Your task to perform on an android device: turn vacation reply on in the gmail app Image 0: 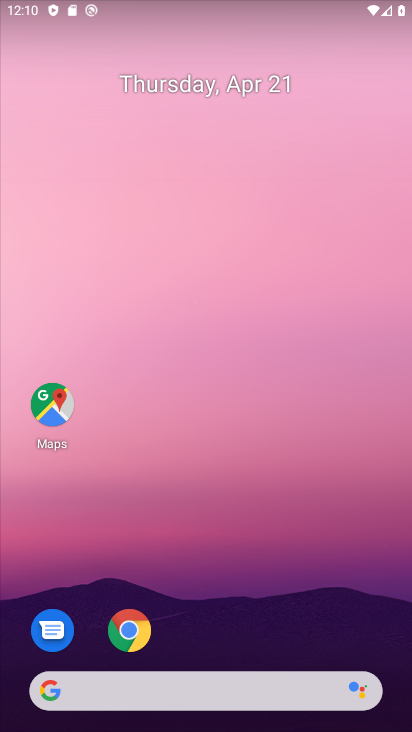
Step 0: drag from (343, 136) to (268, 134)
Your task to perform on an android device: turn vacation reply on in the gmail app Image 1: 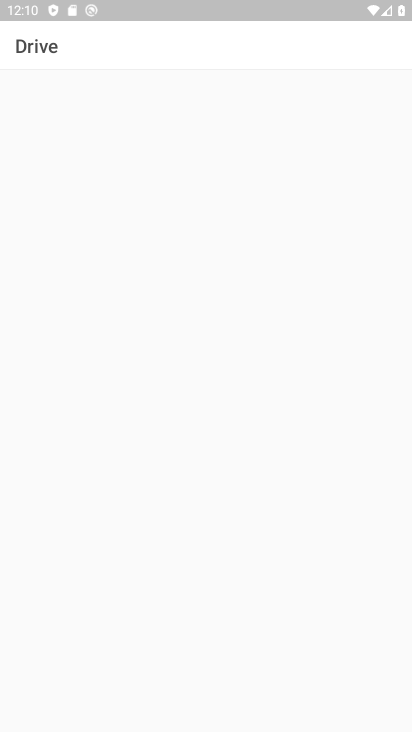
Step 1: press home button
Your task to perform on an android device: turn vacation reply on in the gmail app Image 2: 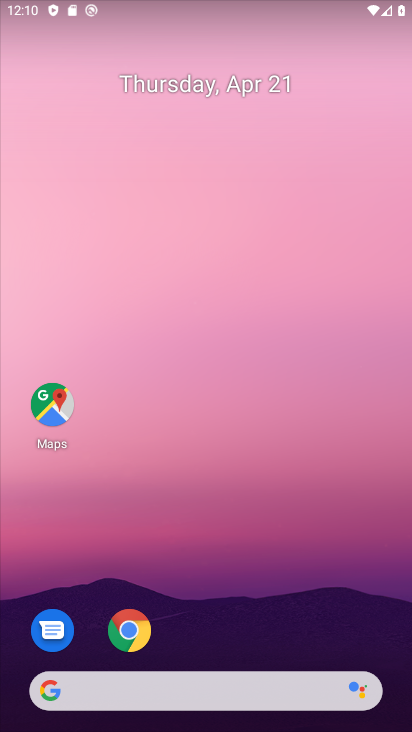
Step 2: drag from (271, 493) to (264, 74)
Your task to perform on an android device: turn vacation reply on in the gmail app Image 3: 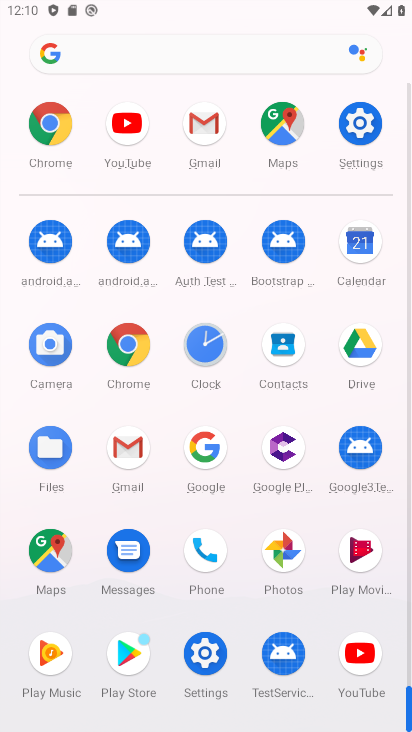
Step 3: click (218, 129)
Your task to perform on an android device: turn vacation reply on in the gmail app Image 4: 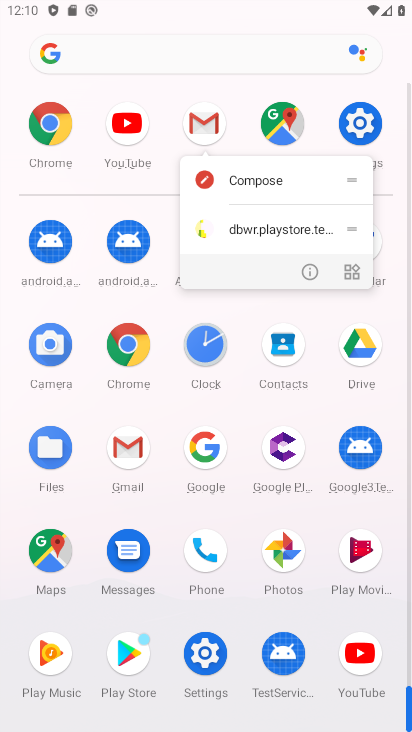
Step 4: click (218, 129)
Your task to perform on an android device: turn vacation reply on in the gmail app Image 5: 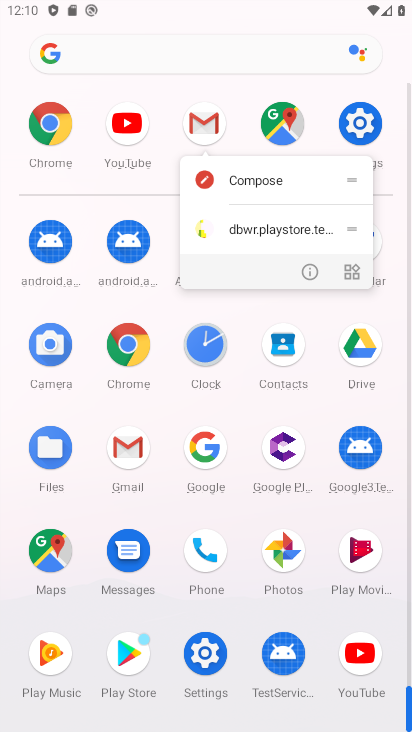
Step 5: click (218, 127)
Your task to perform on an android device: turn vacation reply on in the gmail app Image 6: 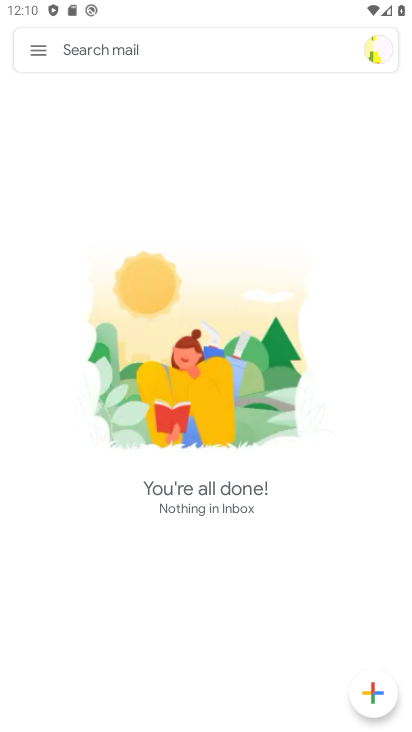
Step 6: click (30, 56)
Your task to perform on an android device: turn vacation reply on in the gmail app Image 7: 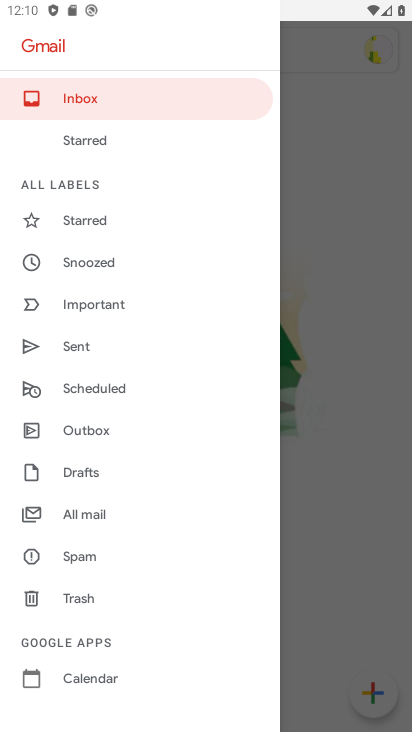
Step 7: drag from (121, 569) to (159, 184)
Your task to perform on an android device: turn vacation reply on in the gmail app Image 8: 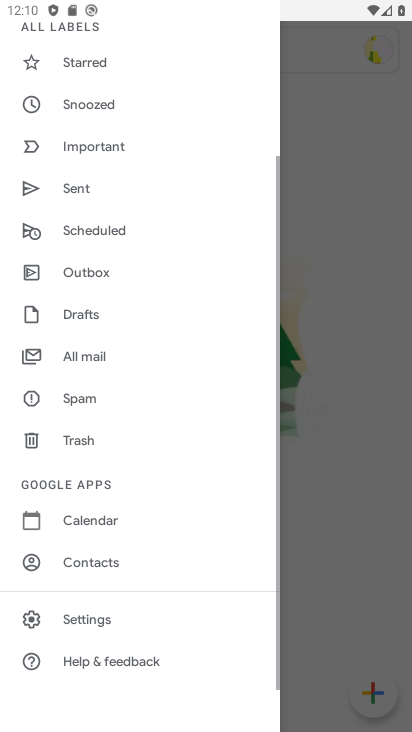
Step 8: click (92, 616)
Your task to perform on an android device: turn vacation reply on in the gmail app Image 9: 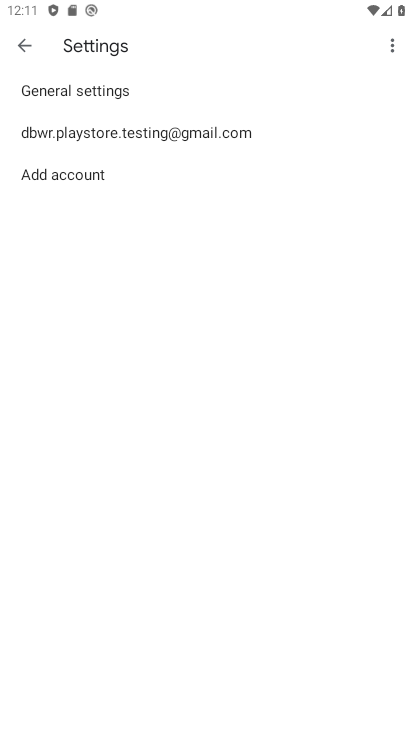
Step 9: click (45, 140)
Your task to perform on an android device: turn vacation reply on in the gmail app Image 10: 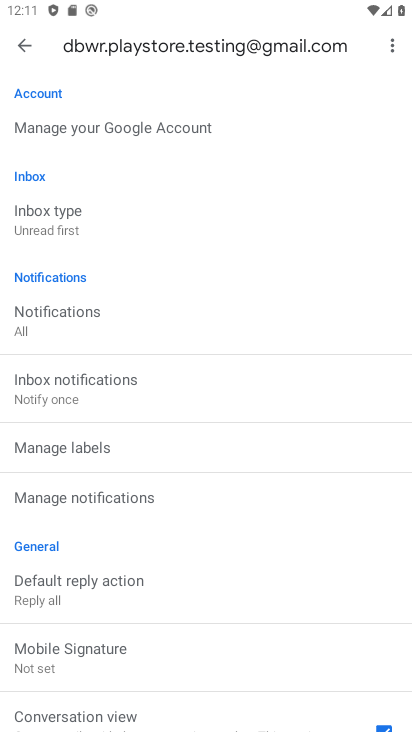
Step 10: drag from (214, 686) to (193, 286)
Your task to perform on an android device: turn vacation reply on in the gmail app Image 11: 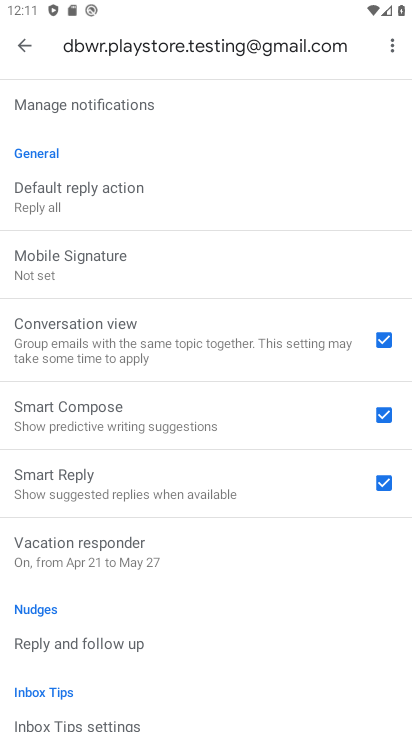
Step 11: drag from (197, 592) to (204, 174)
Your task to perform on an android device: turn vacation reply on in the gmail app Image 12: 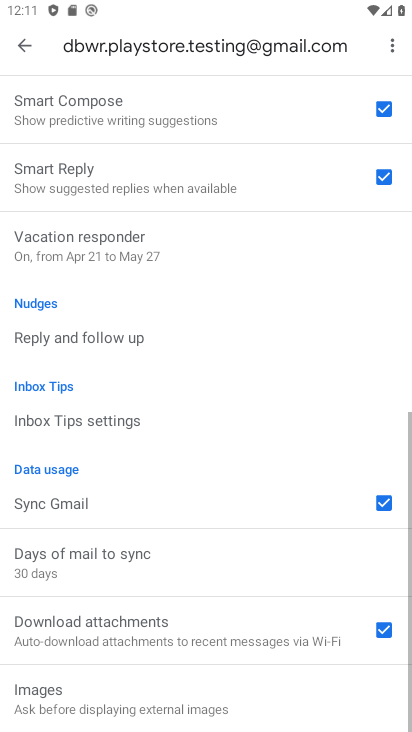
Step 12: drag from (201, 632) to (194, 257)
Your task to perform on an android device: turn vacation reply on in the gmail app Image 13: 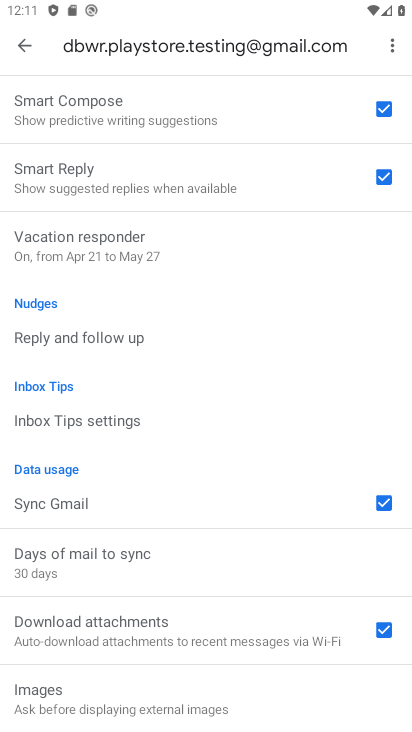
Step 13: click (110, 254)
Your task to perform on an android device: turn vacation reply on in the gmail app Image 14: 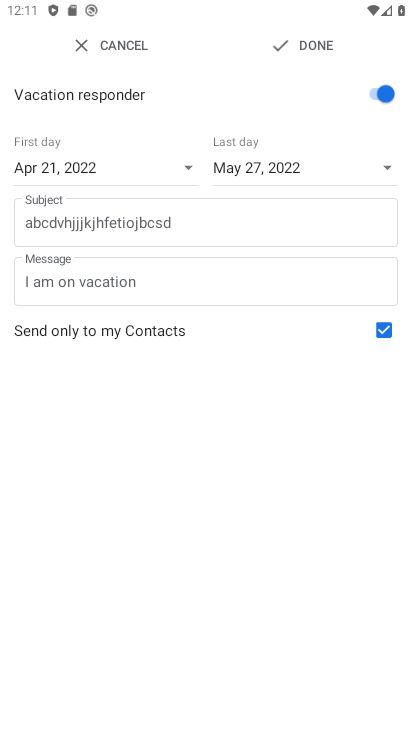
Step 14: task complete